Your task to perform on an android device: What is the news today? Image 0: 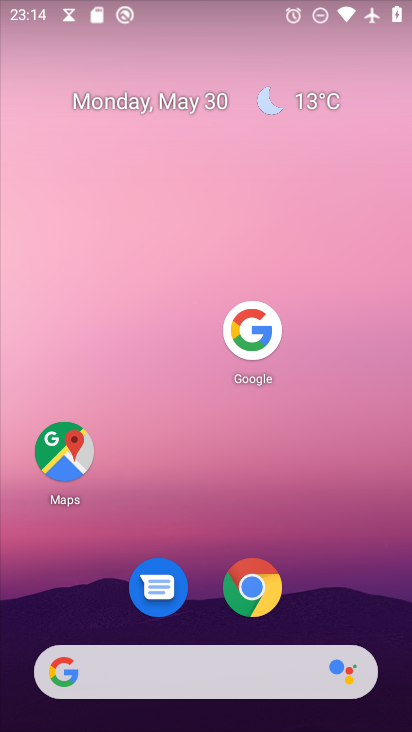
Step 0: press home button
Your task to perform on an android device: What is the news today? Image 1: 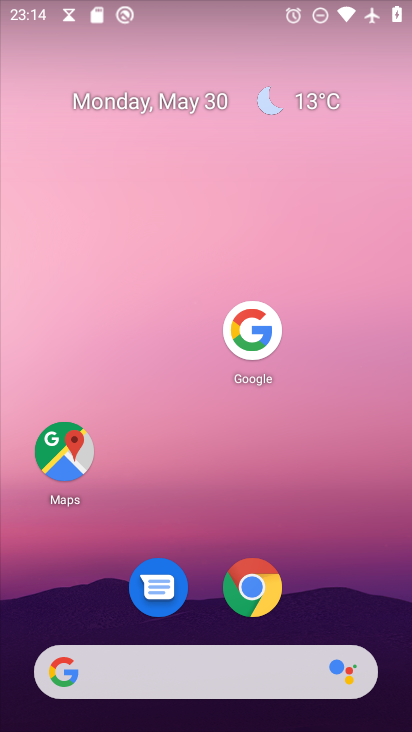
Step 1: click (68, 670)
Your task to perform on an android device: What is the news today? Image 2: 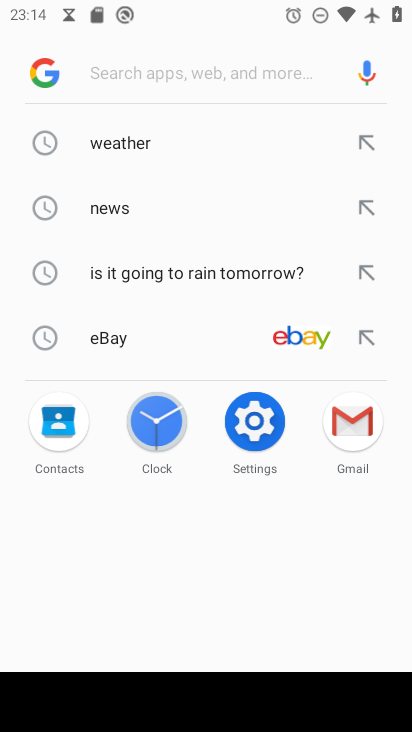
Step 2: click (123, 209)
Your task to perform on an android device: What is the news today? Image 3: 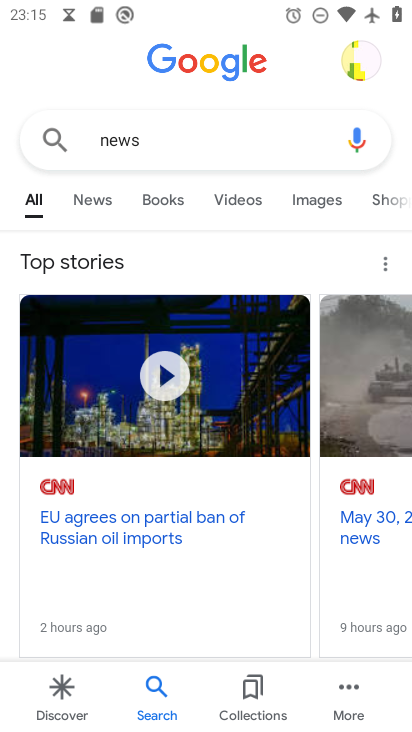
Step 3: click (104, 200)
Your task to perform on an android device: What is the news today? Image 4: 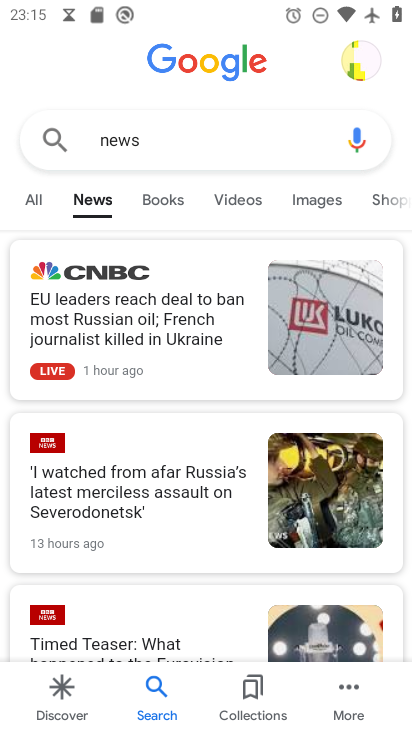
Step 4: task complete